Your task to perform on an android device: What is the news today? Image 0: 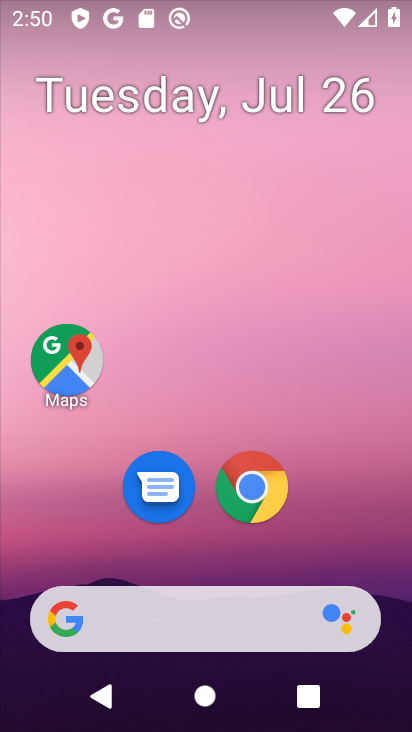
Step 0: click (206, 614)
Your task to perform on an android device: What is the news today? Image 1: 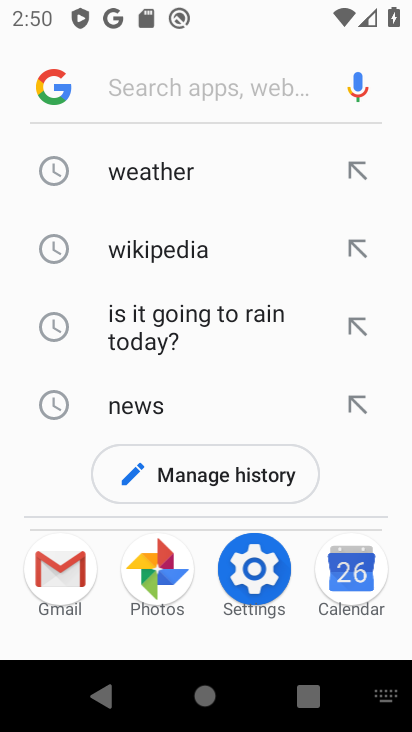
Step 1: click (123, 100)
Your task to perform on an android device: What is the news today? Image 2: 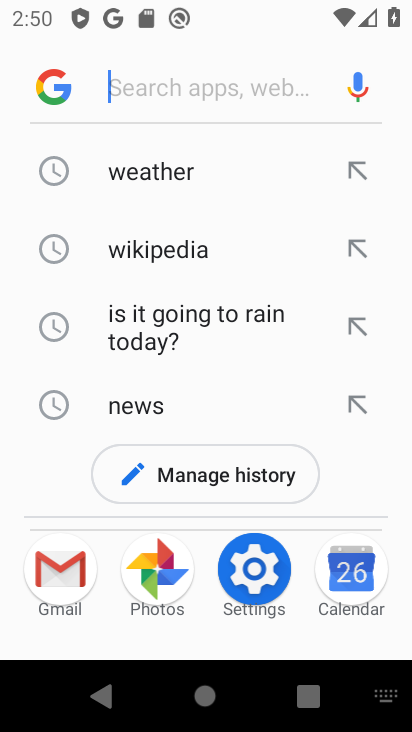
Step 2: type "news today"
Your task to perform on an android device: What is the news today? Image 3: 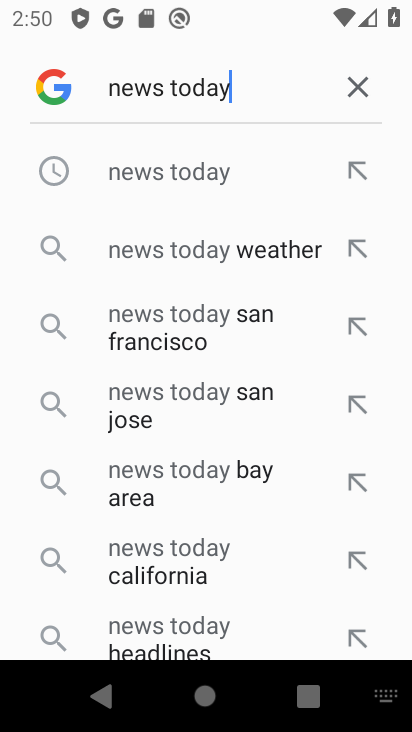
Step 3: click (207, 186)
Your task to perform on an android device: What is the news today? Image 4: 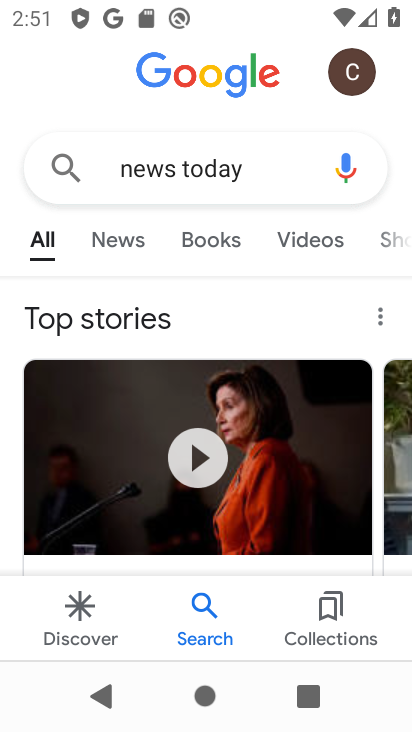
Step 4: task complete